Your task to perform on an android device: Open Maps and search for coffee Image 0: 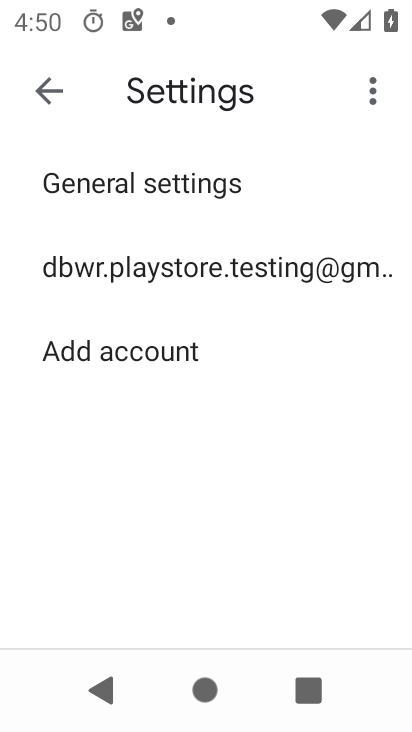
Step 0: press home button
Your task to perform on an android device: Open Maps and search for coffee Image 1: 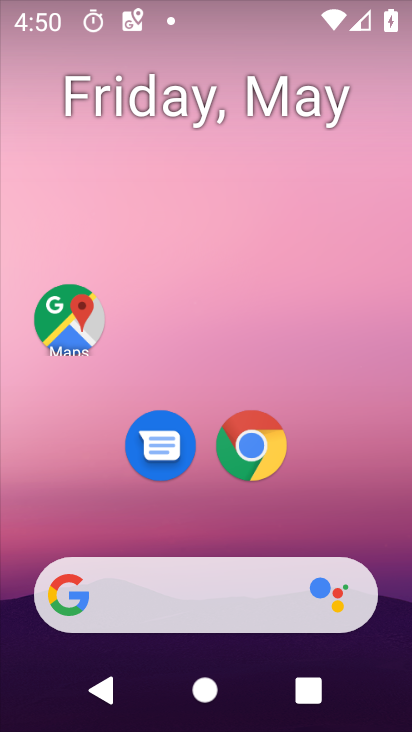
Step 1: click (63, 316)
Your task to perform on an android device: Open Maps and search for coffee Image 2: 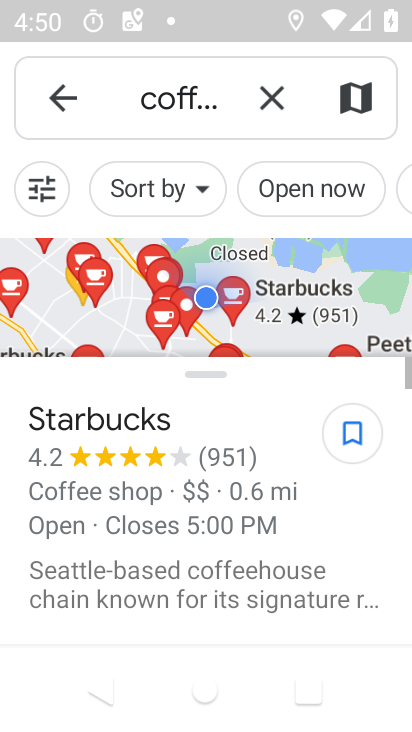
Step 2: click (216, 94)
Your task to perform on an android device: Open Maps and search for coffee Image 3: 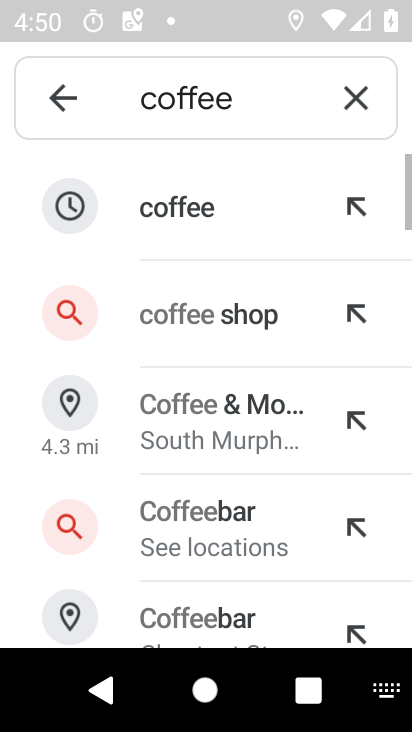
Step 3: click (191, 195)
Your task to perform on an android device: Open Maps and search for coffee Image 4: 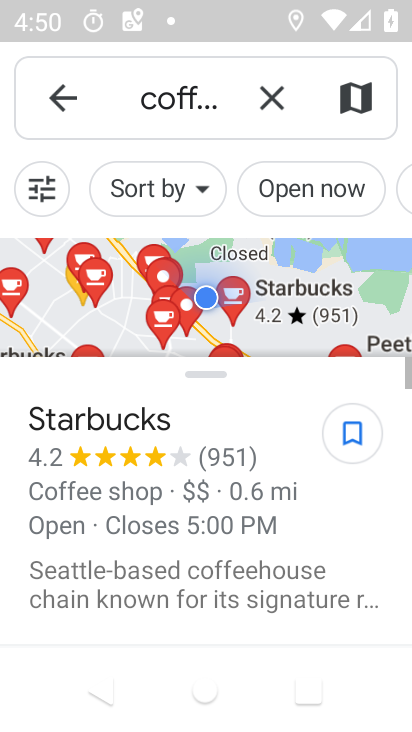
Step 4: task complete